Your task to perform on an android device: Go to Google maps Image 0: 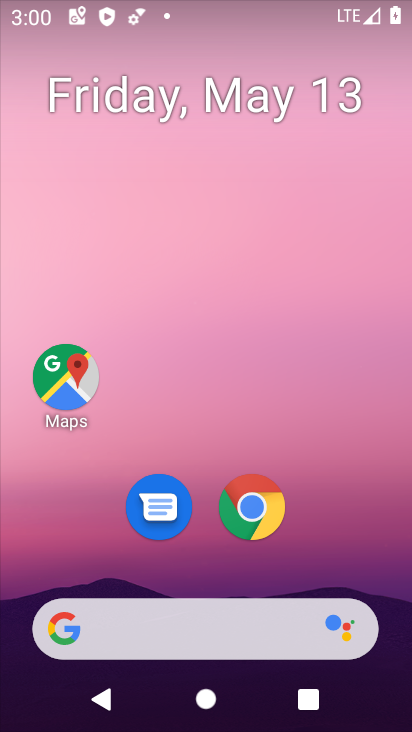
Step 0: click (77, 364)
Your task to perform on an android device: Go to Google maps Image 1: 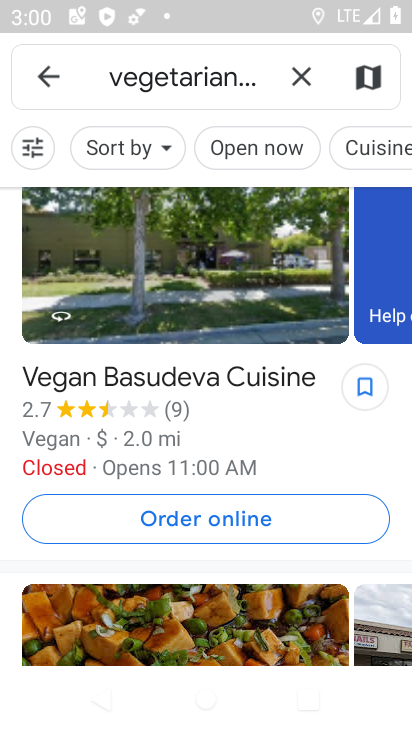
Step 1: click (302, 75)
Your task to perform on an android device: Go to Google maps Image 2: 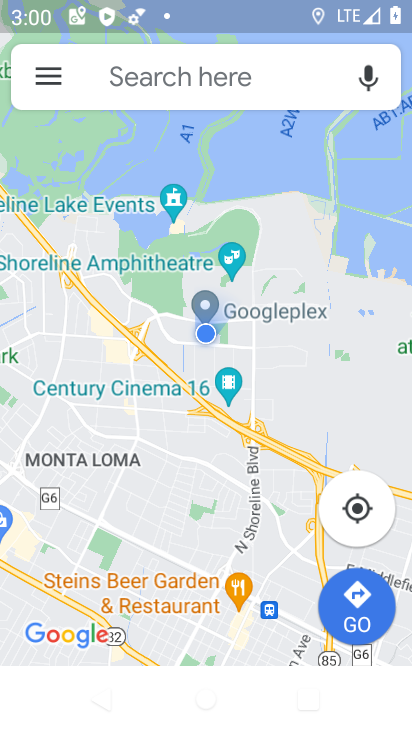
Step 2: task complete